Your task to perform on an android device: turn off priority inbox in the gmail app Image 0: 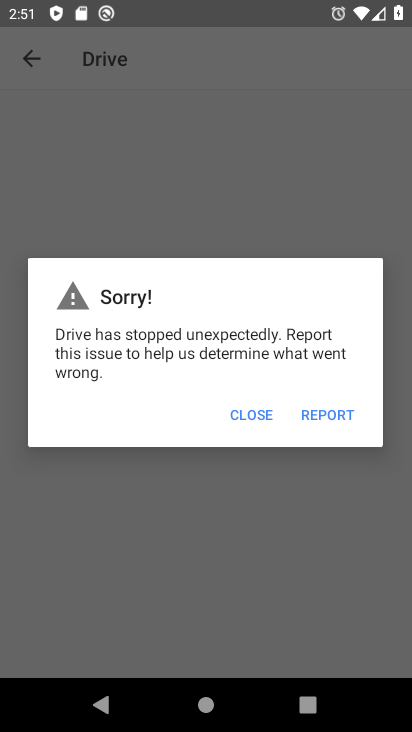
Step 0: press home button
Your task to perform on an android device: turn off priority inbox in the gmail app Image 1: 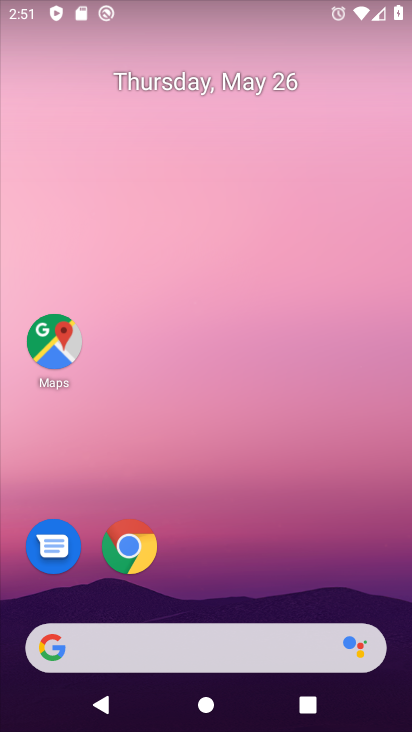
Step 1: drag from (390, 712) to (361, 196)
Your task to perform on an android device: turn off priority inbox in the gmail app Image 2: 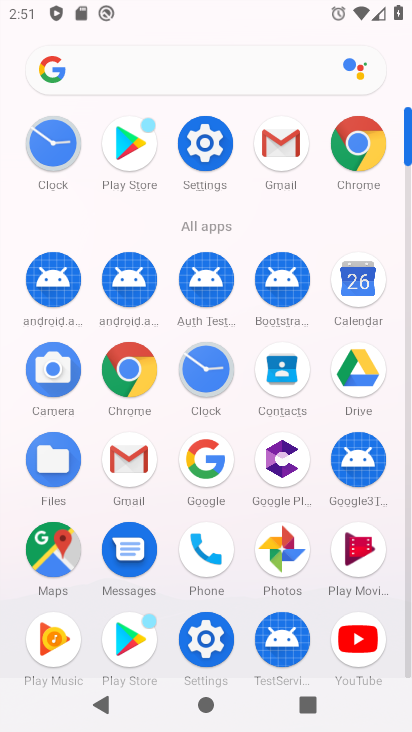
Step 2: click (142, 458)
Your task to perform on an android device: turn off priority inbox in the gmail app Image 3: 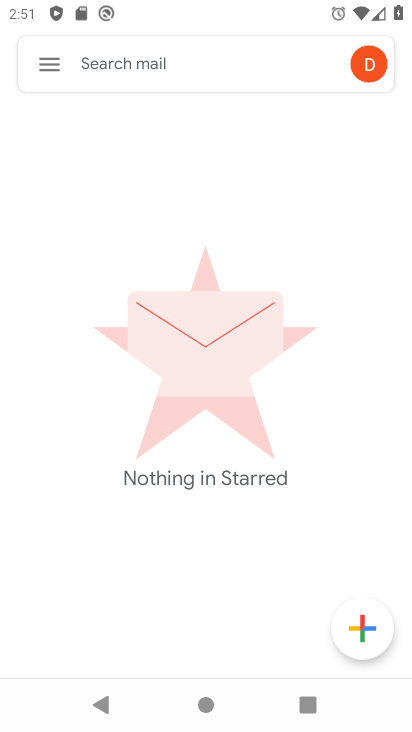
Step 3: click (50, 60)
Your task to perform on an android device: turn off priority inbox in the gmail app Image 4: 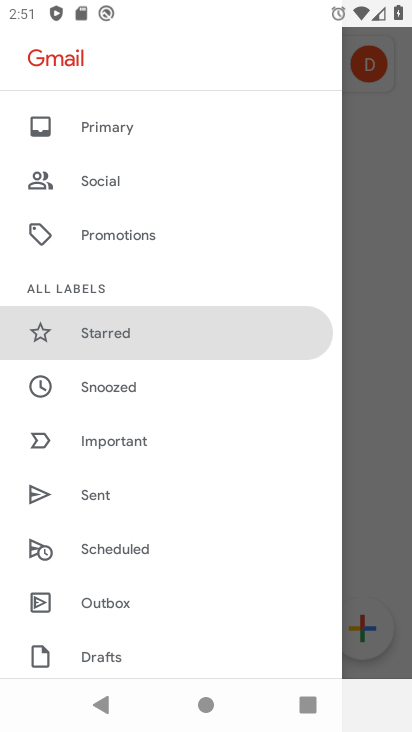
Step 4: drag from (242, 645) to (250, 274)
Your task to perform on an android device: turn off priority inbox in the gmail app Image 5: 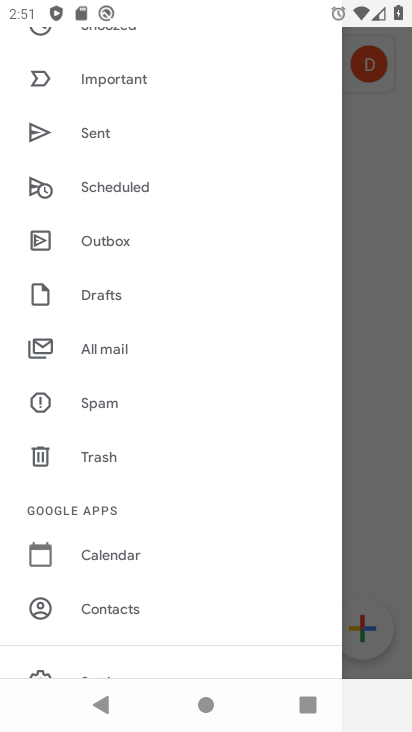
Step 5: drag from (203, 630) to (231, 324)
Your task to perform on an android device: turn off priority inbox in the gmail app Image 6: 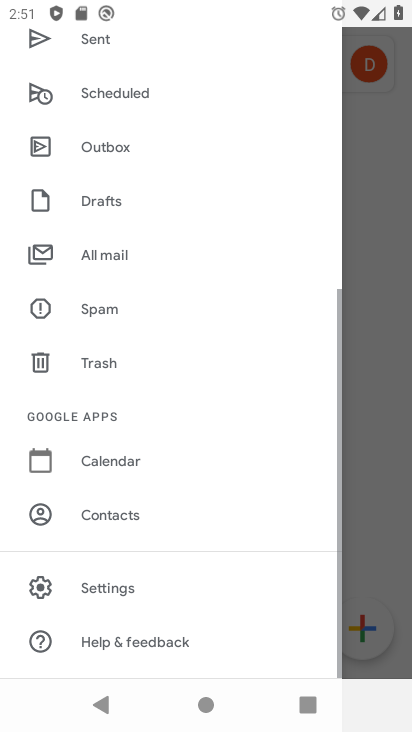
Step 6: click (108, 584)
Your task to perform on an android device: turn off priority inbox in the gmail app Image 7: 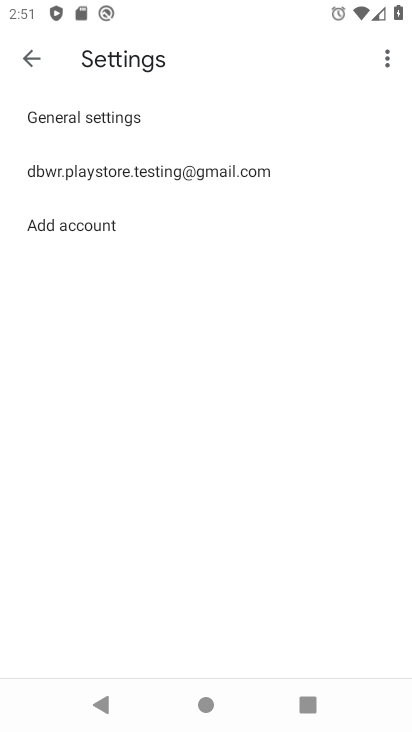
Step 7: click (73, 173)
Your task to perform on an android device: turn off priority inbox in the gmail app Image 8: 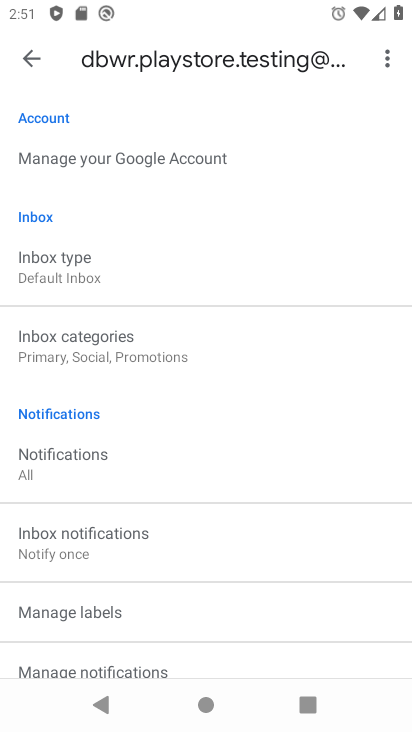
Step 8: click (47, 268)
Your task to perform on an android device: turn off priority inbox in the gmail app Image 9: 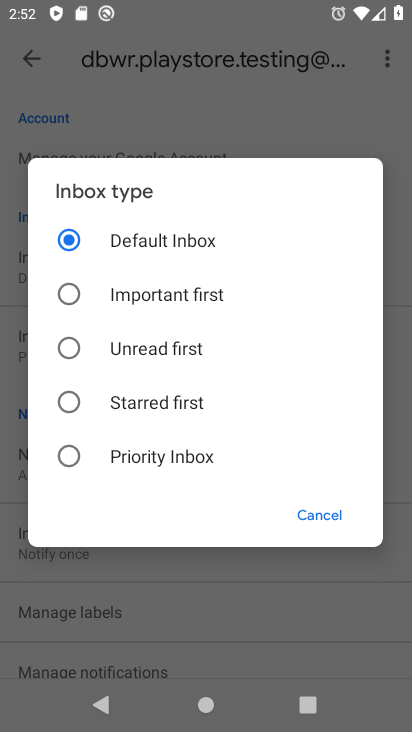
Step 9: task complete